Your task to perform on an android device: Go to Wikipedia Image 0: 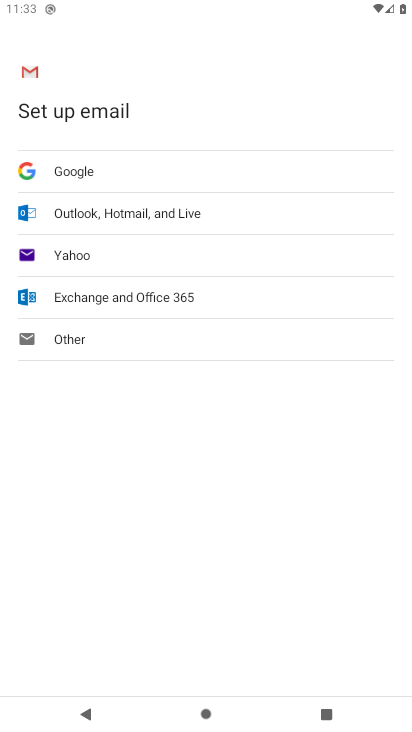
Step 0: press home button
Your task to perform on an android device: Go to Wikipedia Image 1: 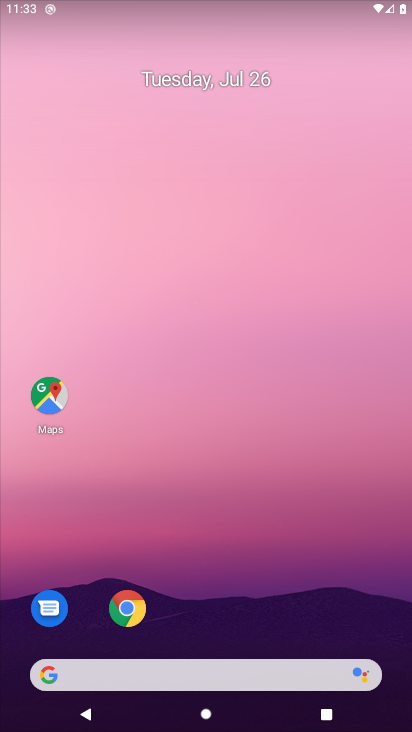
Step 1: click (48, 675)
Your task to perform on an android device: Go to Wikipedia Image 2: 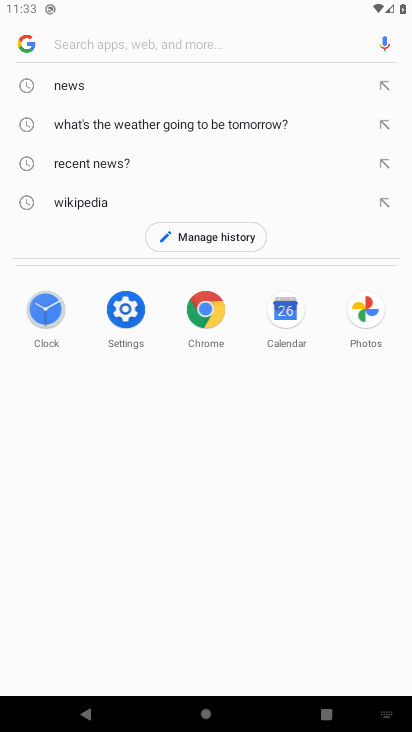
Step 2: click (75, 203)
Your task to perform on an android device: Go to Wikipedia Image 3: 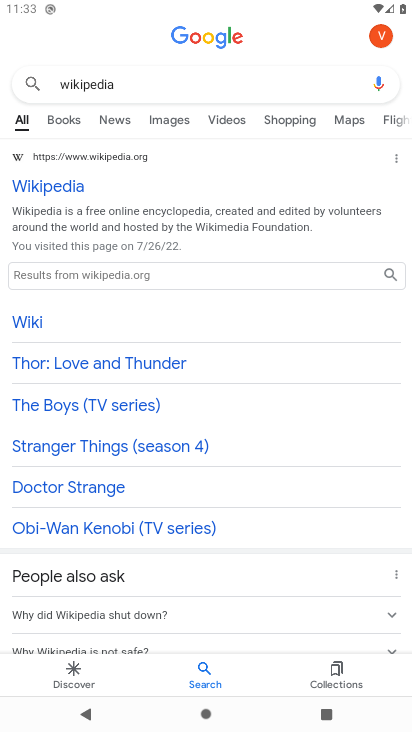
Step 3: click (73, 185)
Your task to perform on an android device: Go to Wikipedia Image 4: 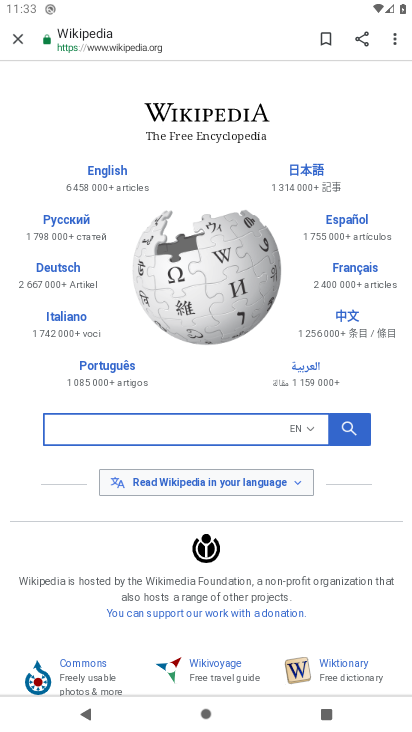
Step 4: task complete